Your task to perform on an android device: Open ESPN.com Image 0: 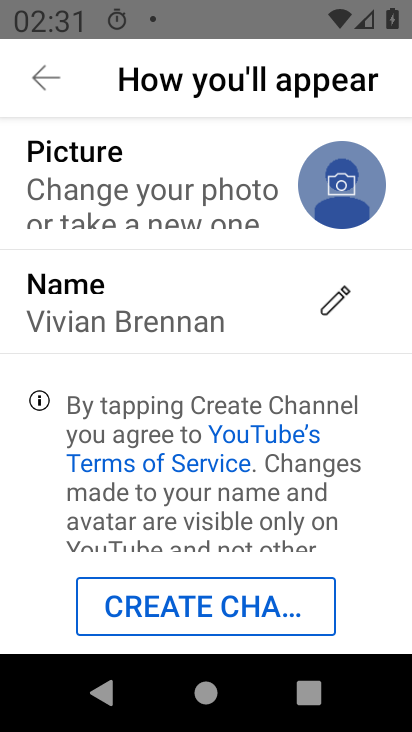
Step 0: press home button
Your task to perform on an android device: Open ESPN.com Image 1: 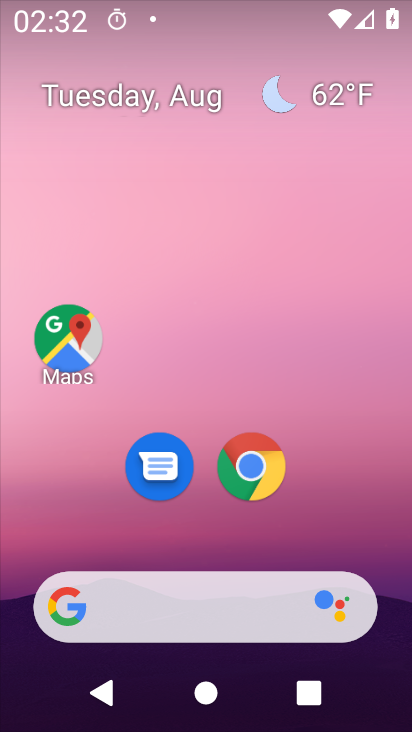
Step 1: drag from (346, 546) to (411, 265)
Your task to perform on an android device: Open ESPN.com Image 2: 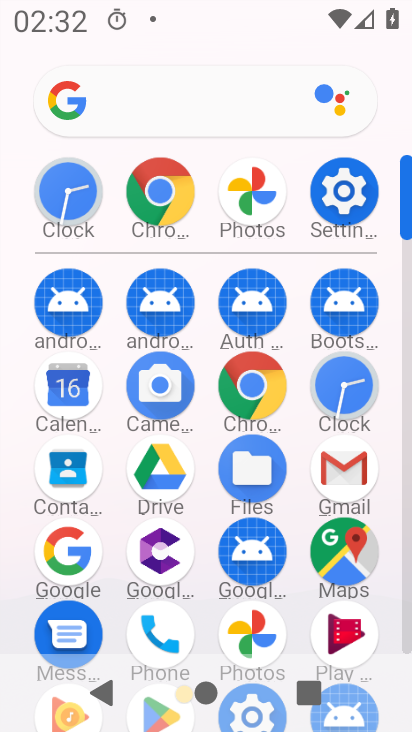
Step 2: click (255, 387)
Your task to perform on an android device: Open ESPN.com Image 3: 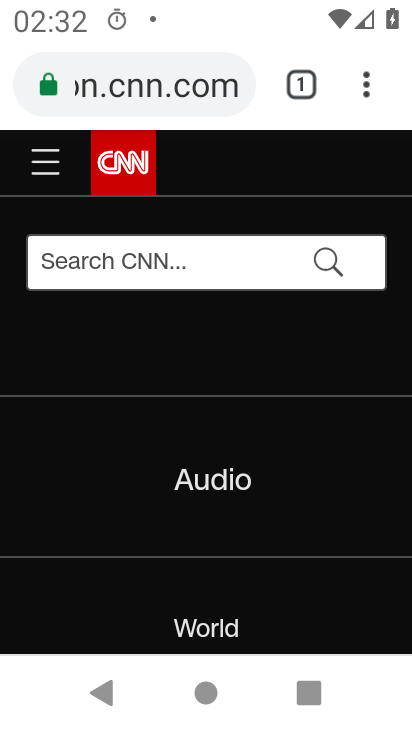
Step 3: click (226, 88)
Your task to perform on an android device: Open ESPN.com Image 4: 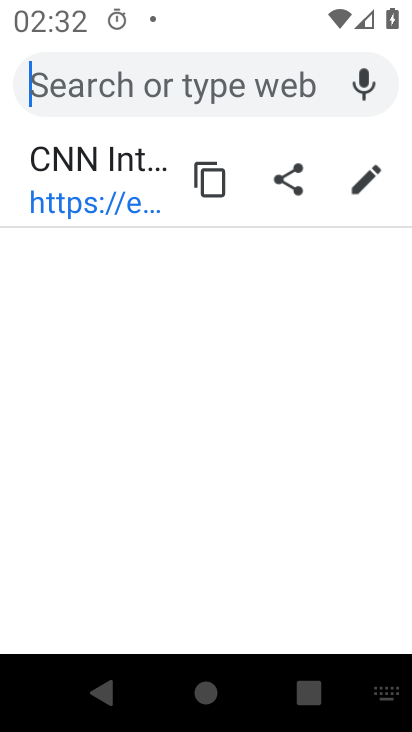
Step 4: type "espn.com"
Your task to perform on an android device: Open ESPN.com Image 5: 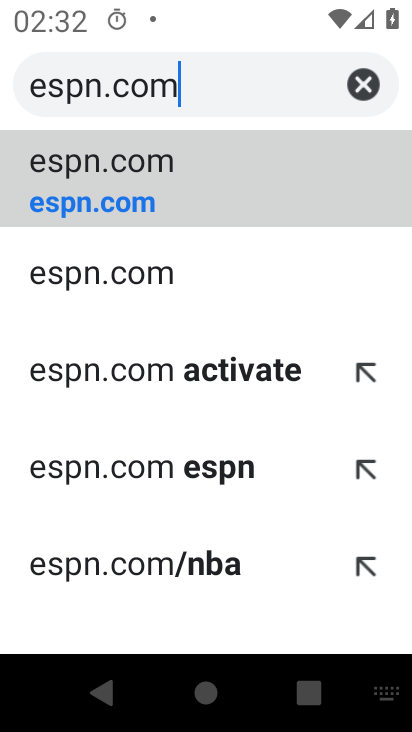
Step 5: click (336, 176)
Your task to perform on an android device: Open ESPN.com Image 6: 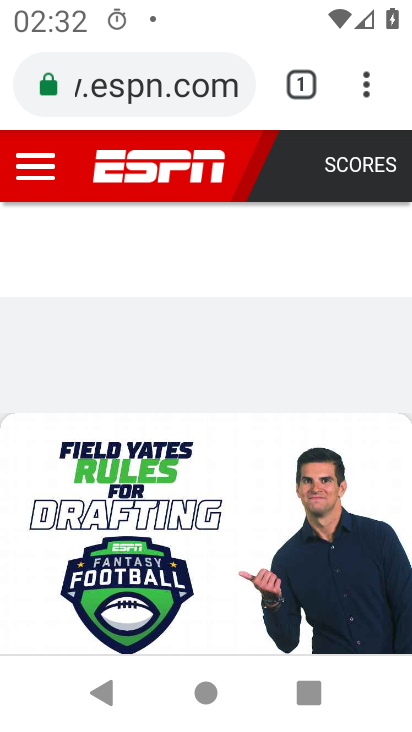
Step 6: task complete